Your task to perform on an android device: set an alarm Image 0: 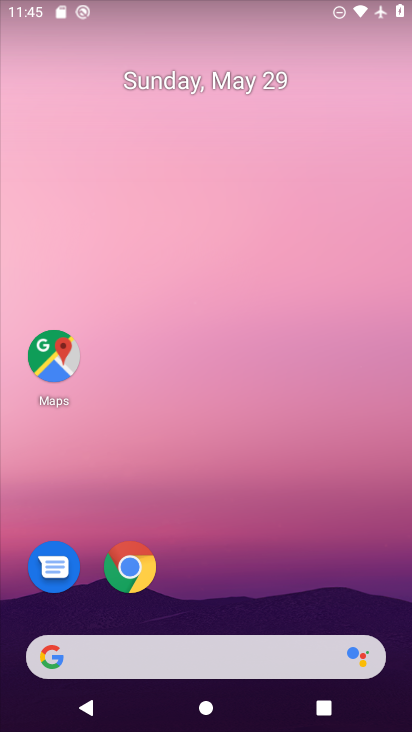
Step 0: drag from (403, 629) to (320, 2)
Your task to perform on an android device: set an alarm Image 1: 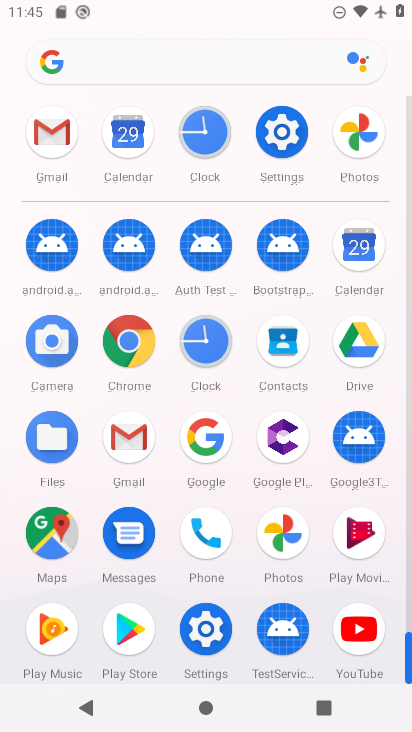
Step 1: click (203, 333)
Your task to perform on an android device: set an alarm Image 2: 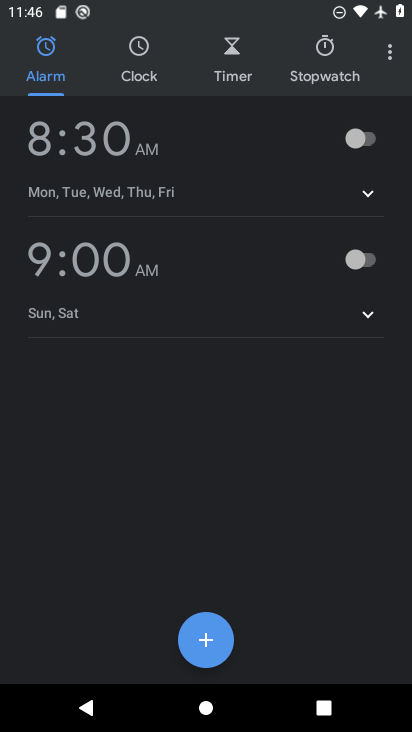
Step 2: click (32, 146)
Your task to perform on an android device: set an alarm Image 3: 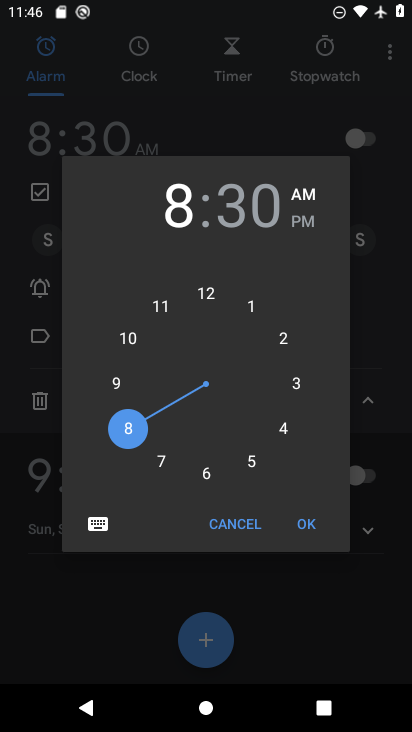
Step 3: click (205, 474)
Your task to perform on an android device: set an alarm Image 4: 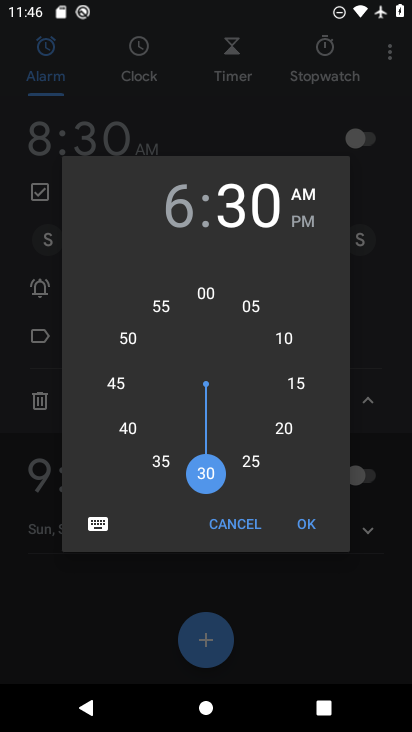
Step 4: click (297, 384)
Your task to perform on an android device: set an alarm Image 5: 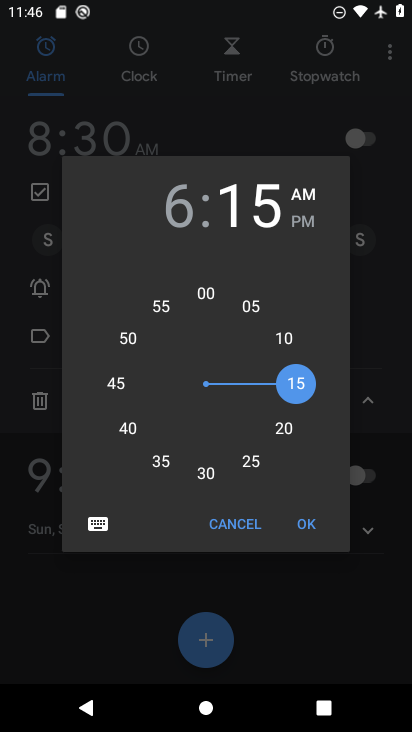
Step 5: click (309, 534)
Your task to perform on an android device: set an alarm Image 6: 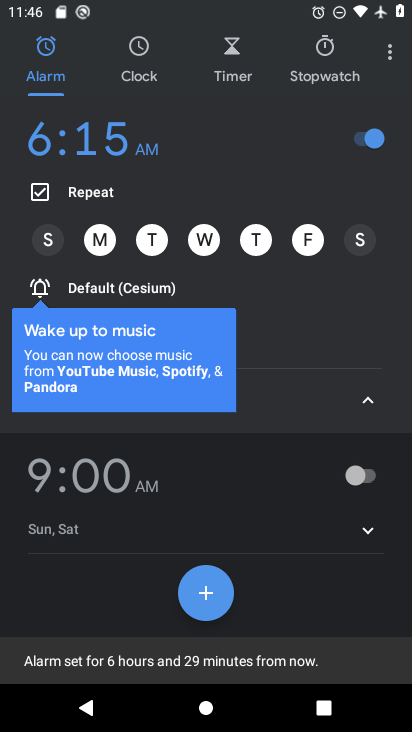
Step 6: click (360, 232)
Your task to perform on an android device: set an alarm Image 7: 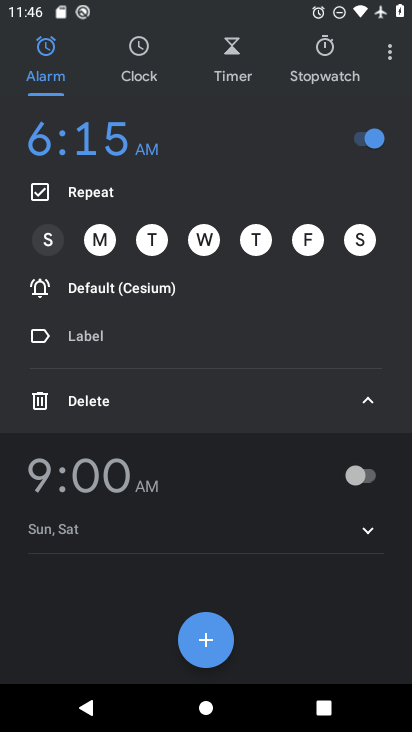
Step 7: click (369, 400)
Your task to perform on an android device: set an alarm Image 8: 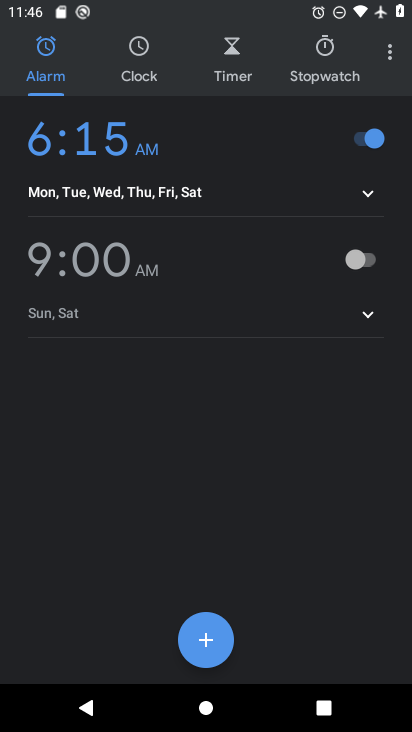
Step 8: task complete